Your task to perform on an android device: uninstall "Spotify: Music and Podcasts" Image 0: 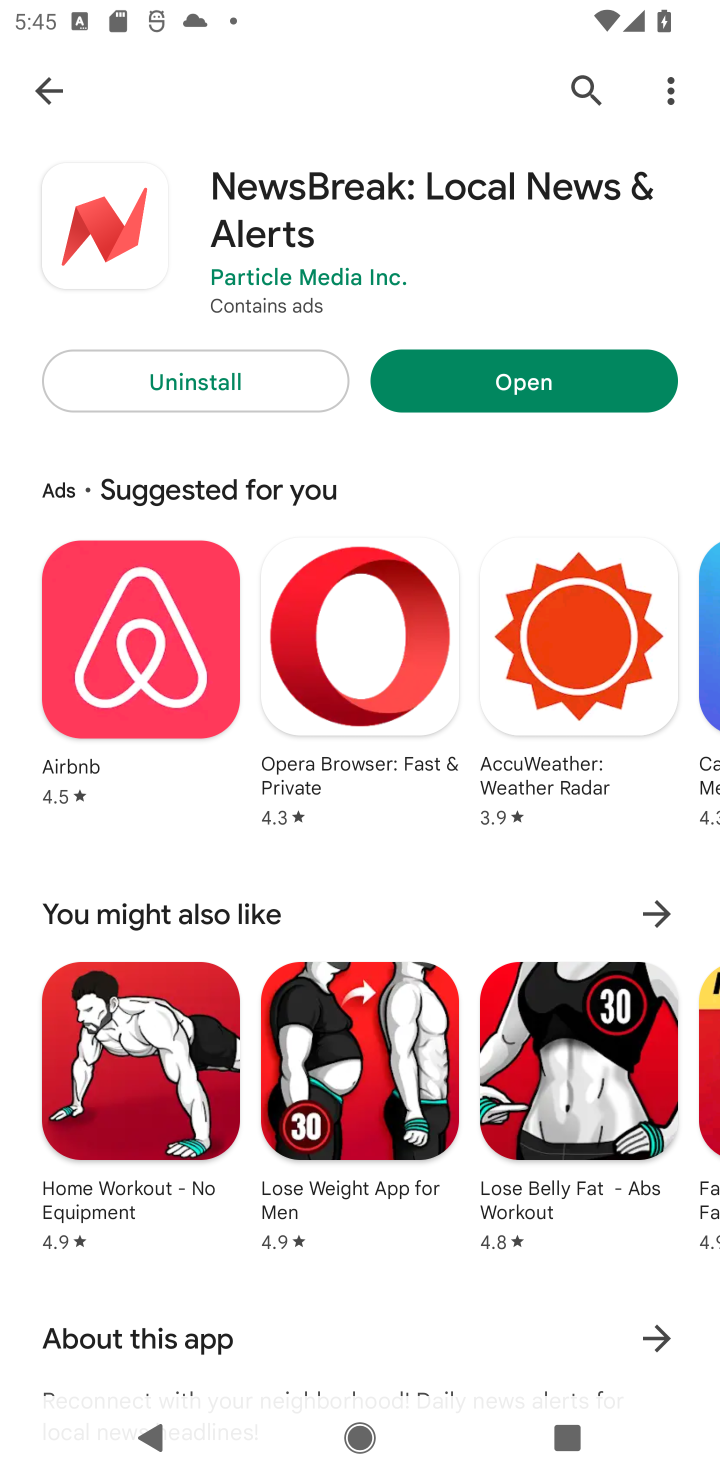
Step 0: press home button
Your task to perform on an android device: uninstall "Spotify: Music and Podcasts" Image 1: 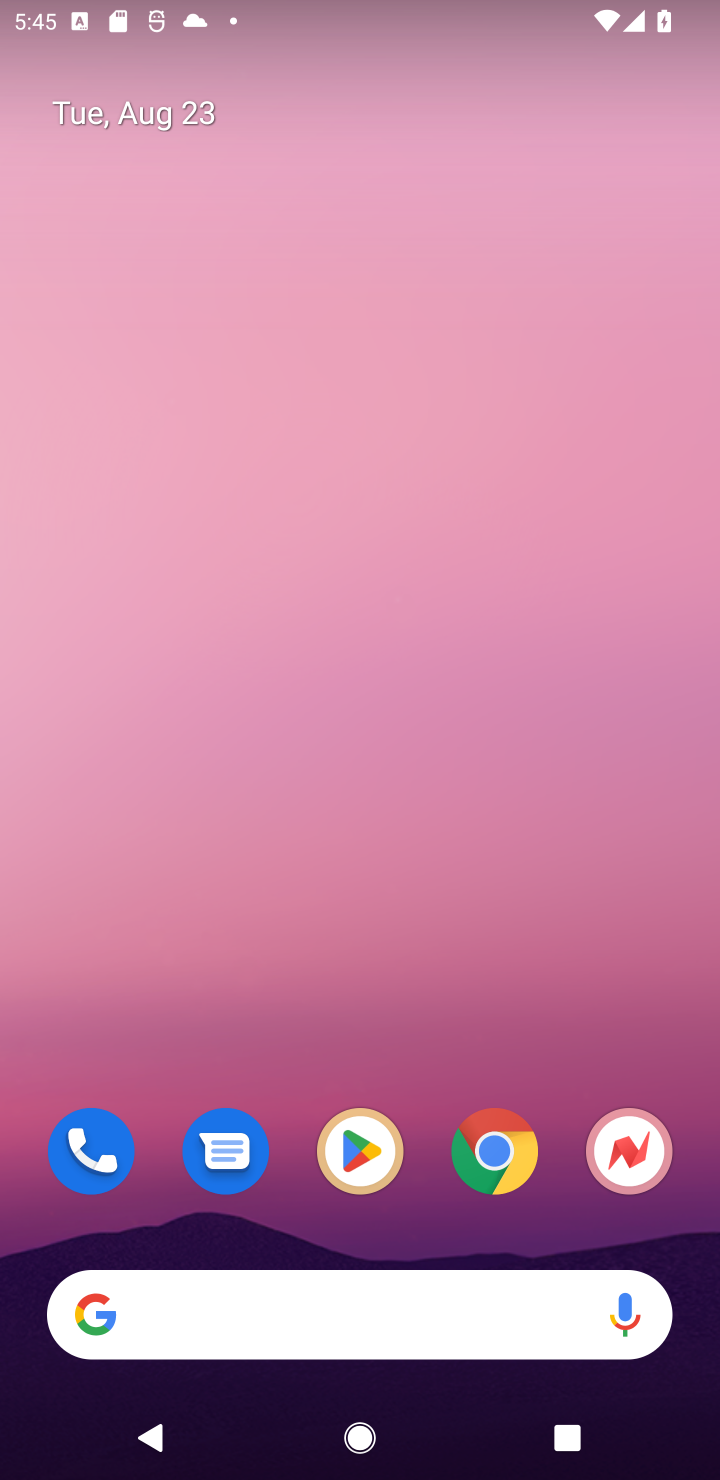
Step 1: click (347, 1155)
Your task to perform on an android device: uninstall "Spotify: Music and Podcasts" Image 2: 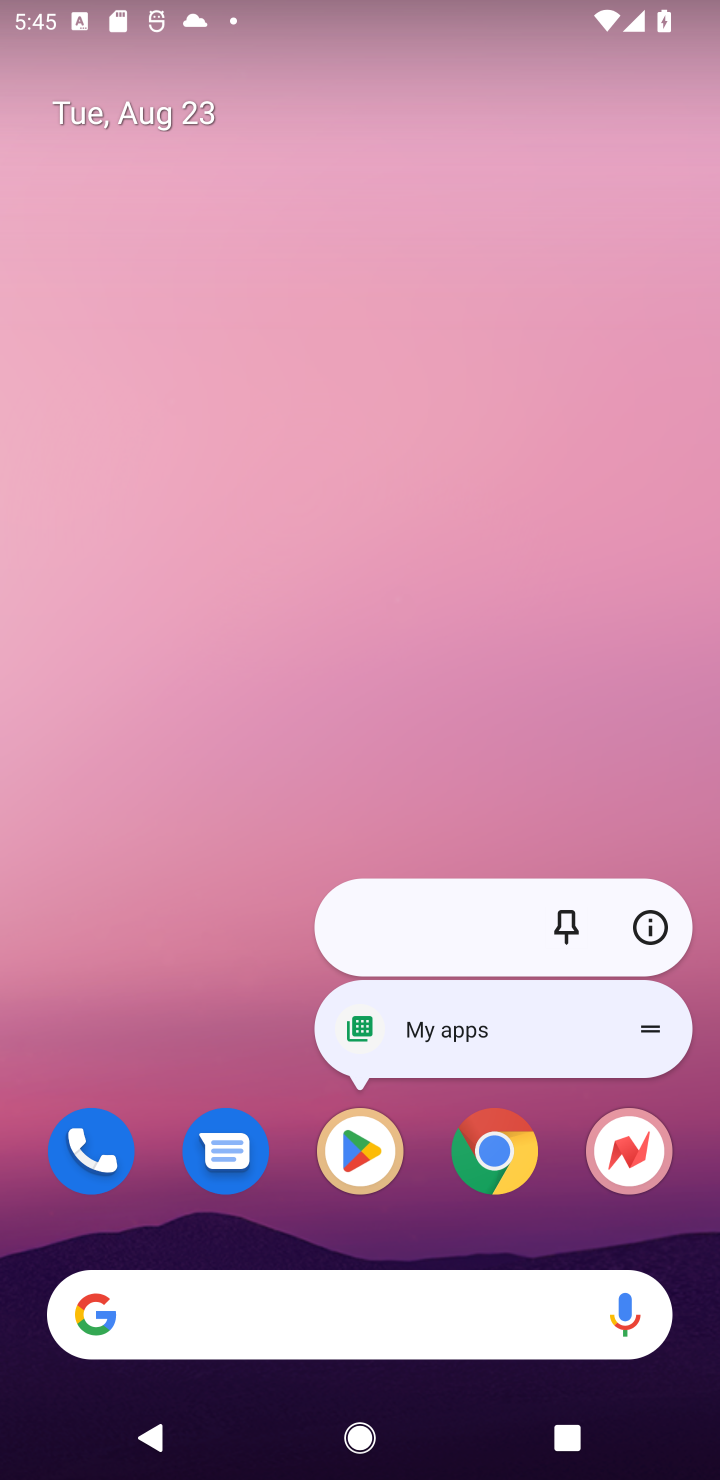
Step 2: click (347, 1166)
Your task to perform on an android device: uninstall "Spotify: Music and Podcasts" Image 3: 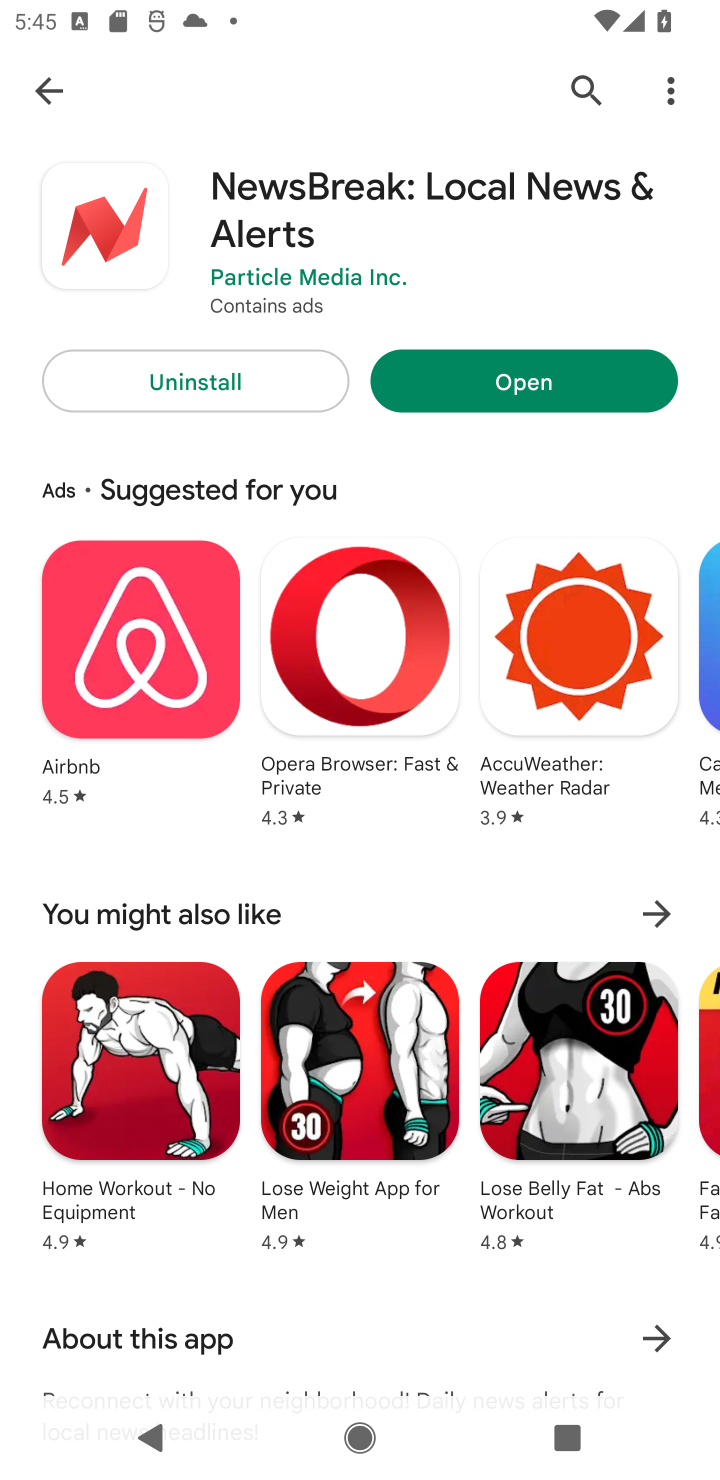
Step 3: click (572, 88)
Your task to perform on an android device: uninstall "Spotify: Music and Podcasts" Image 4: 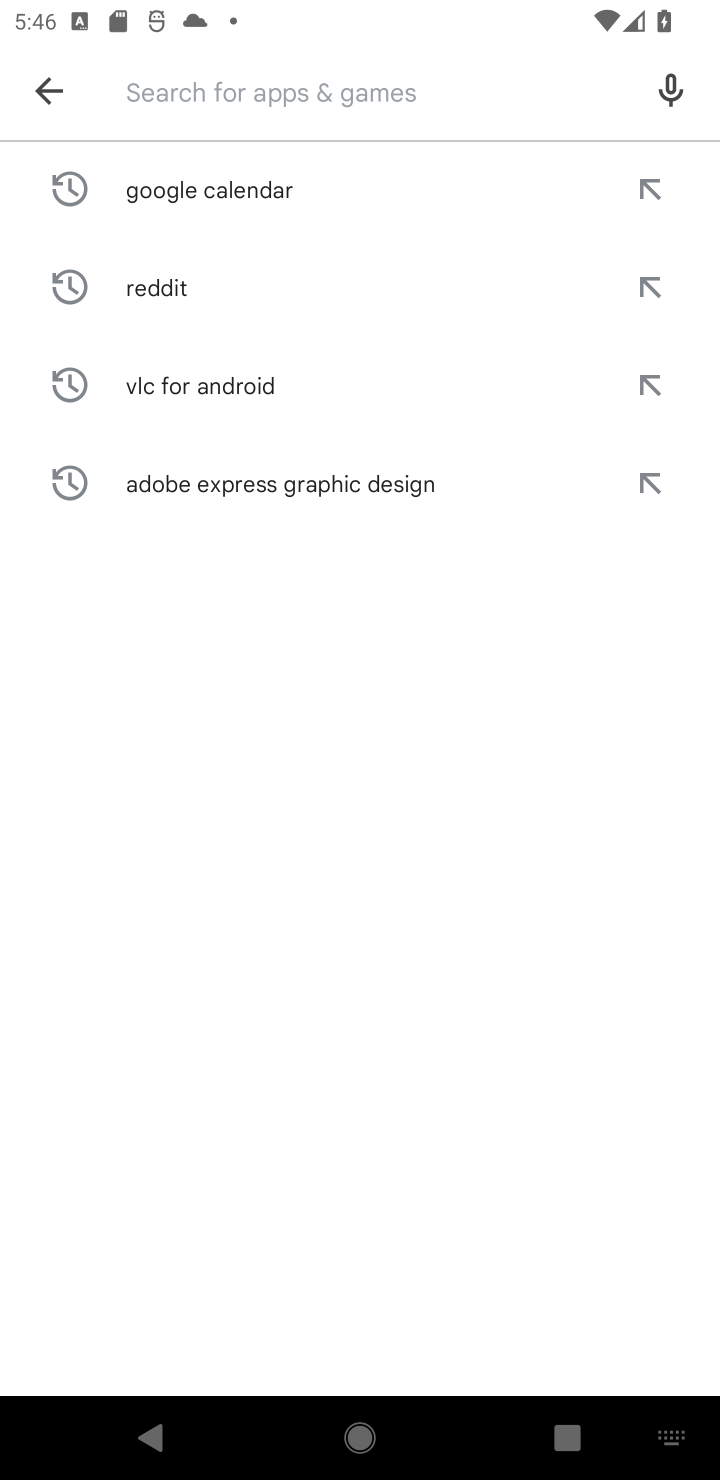
Step 4: type "Spotify: Music and Podcasts"
Your task to perform on an android device: uninstall "Spotify: Music and Podcasts" Image 5: 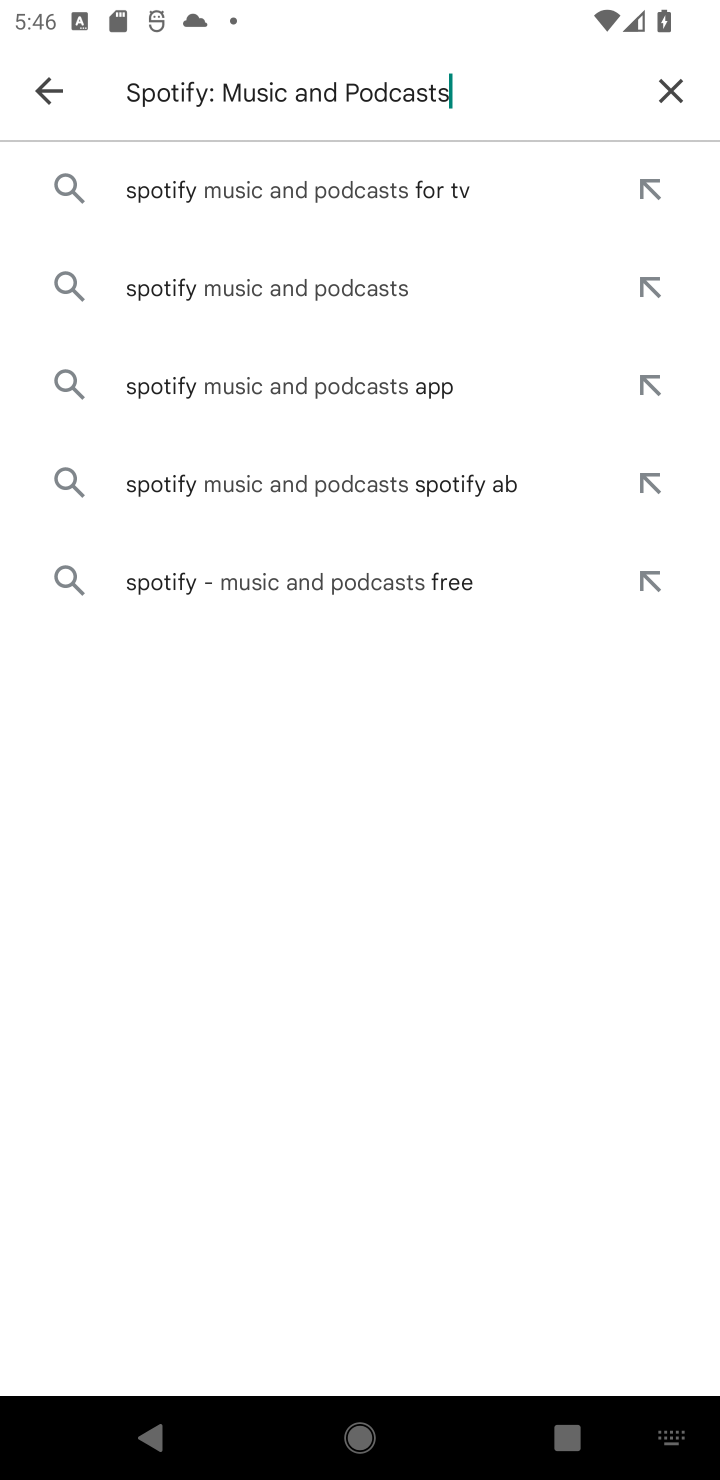
Step 5: click (220, 186)
Your task to perform on an android device: uninstall "Spotify: Music and Podcasts" Image 6: 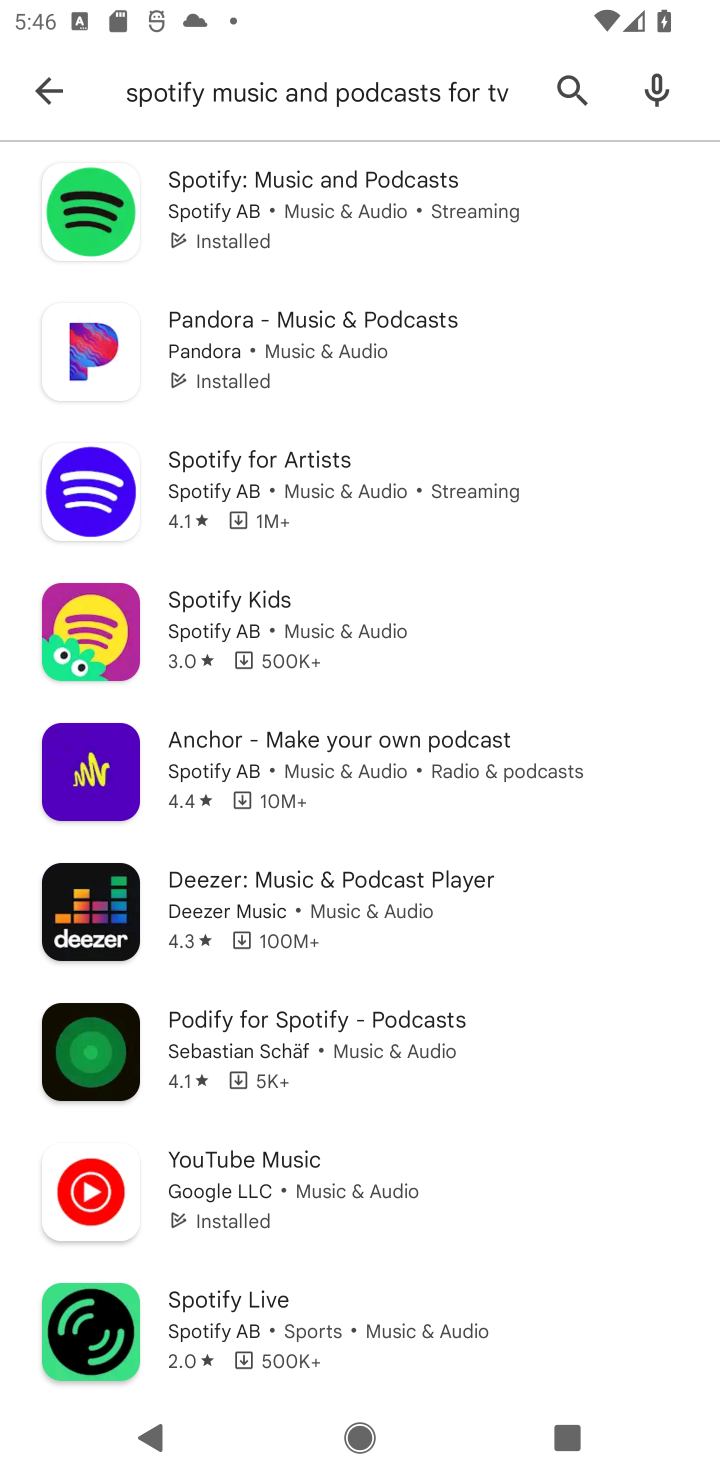
Step 6: click (225, 234)
Your task to perform on an android device: uninstall "Spotify: Music and Podcasts" Image 7: 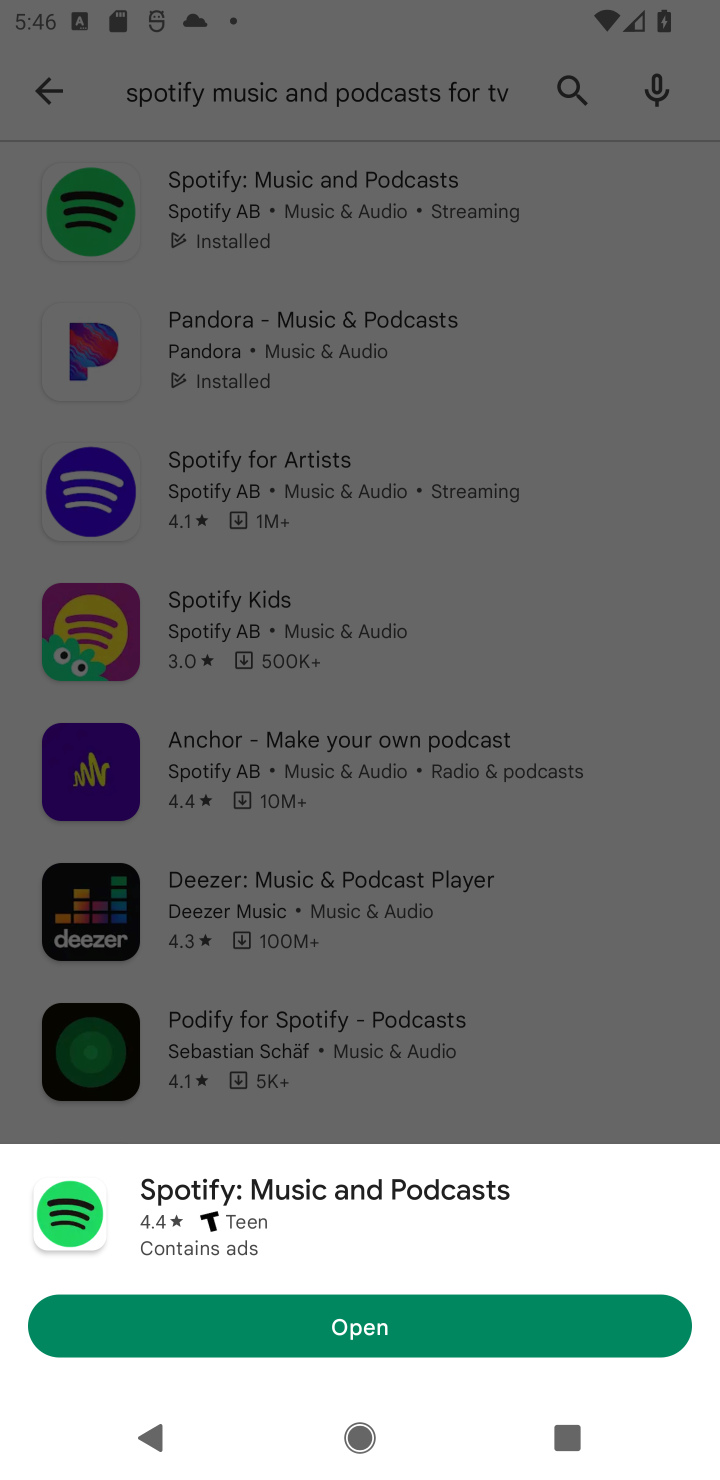
Step 7: click (174, 1199)
Your task to perform on an android device: uninstall "Spotify: Music and Podcasts" Image 8: 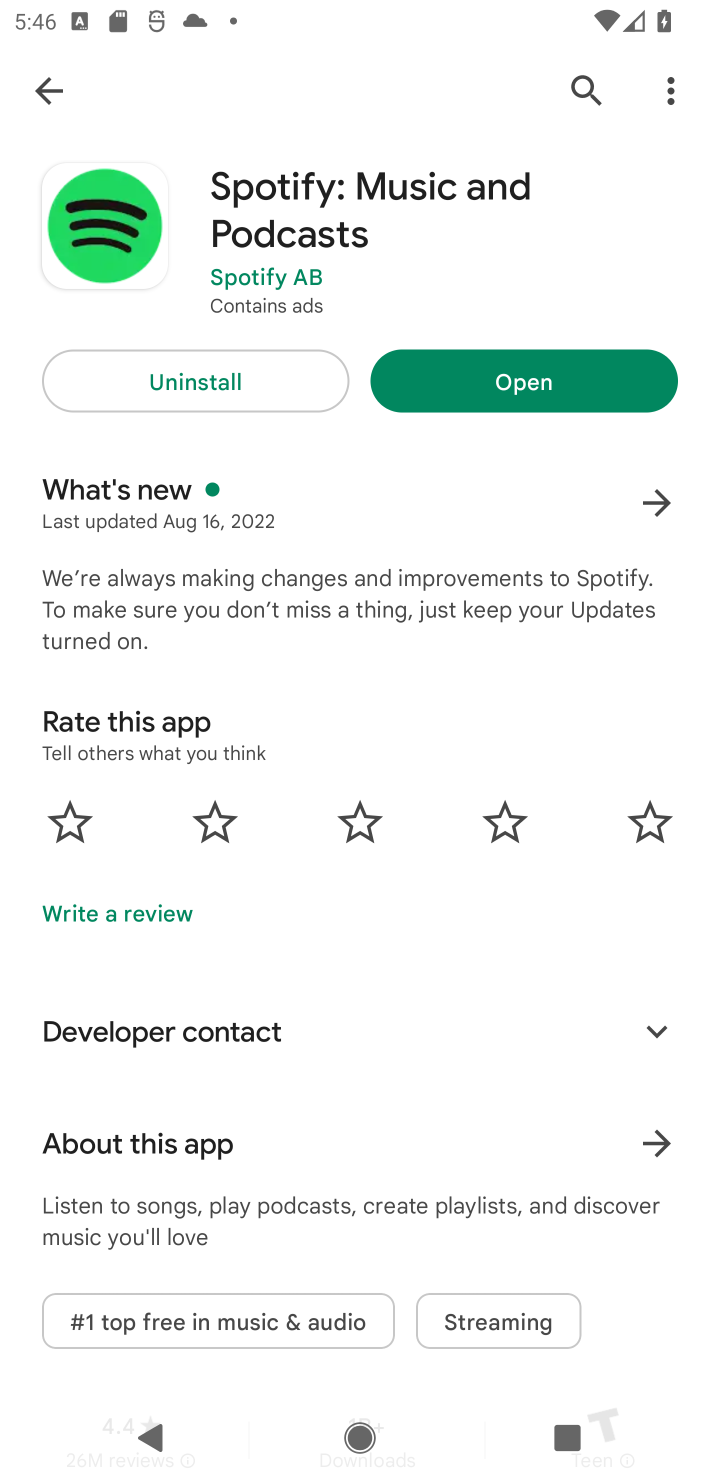
Step 8: click (215, 379)
Your task to perform on an android device: uninstall "Spotify: Music and Podcasts" Image 9: 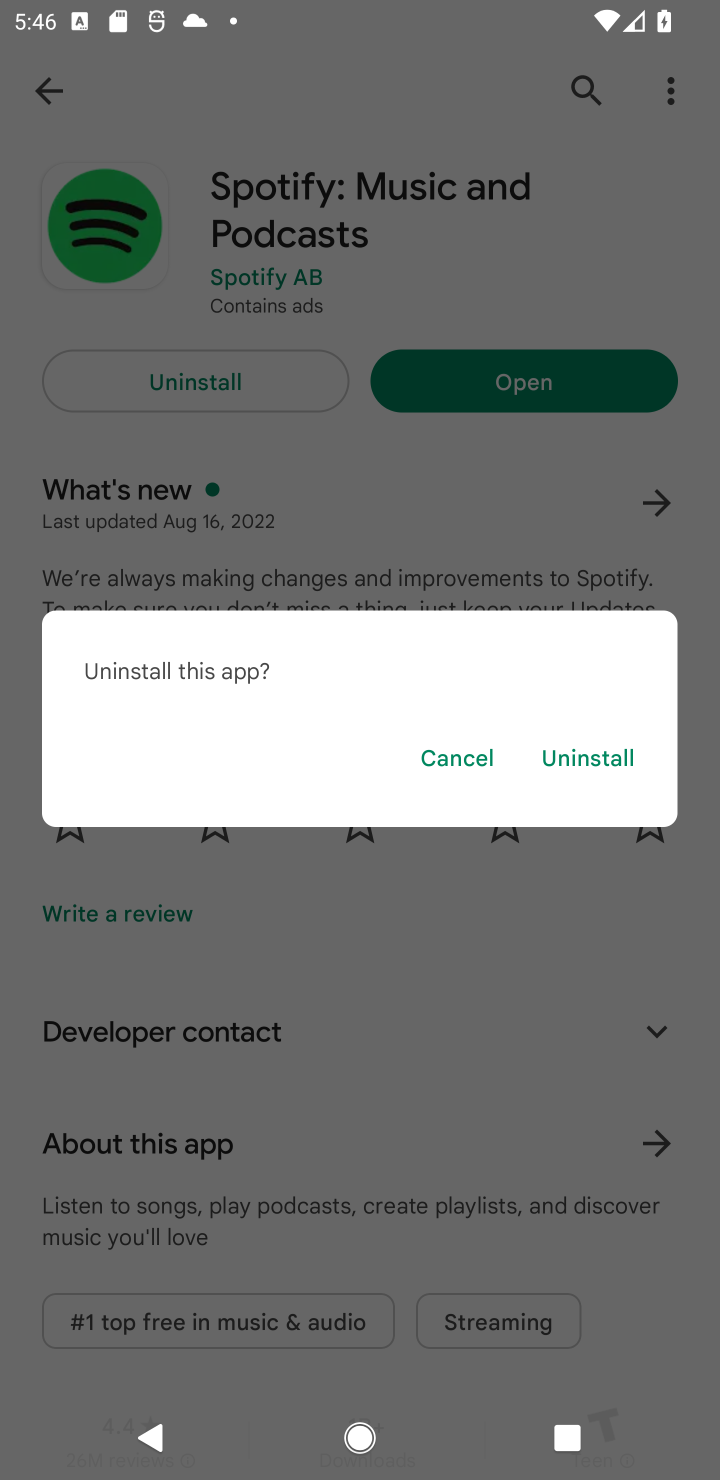
Step 9: click (571, 761)
Your task to perform on an android device: uninstall "Spotify: Music and Podcasts" Image 10: 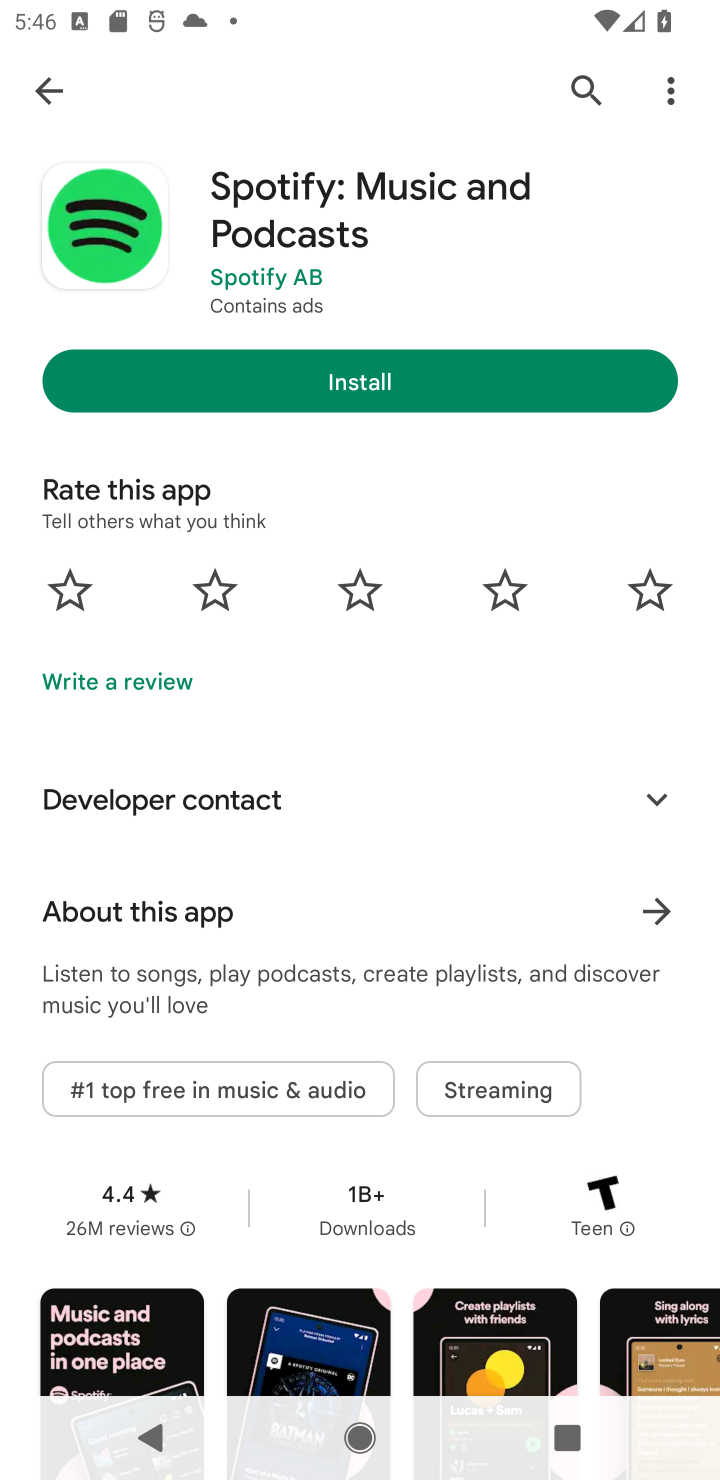
Step 10: task complete